Your task to perform on an android device: Is it going to rain today? Image 0: 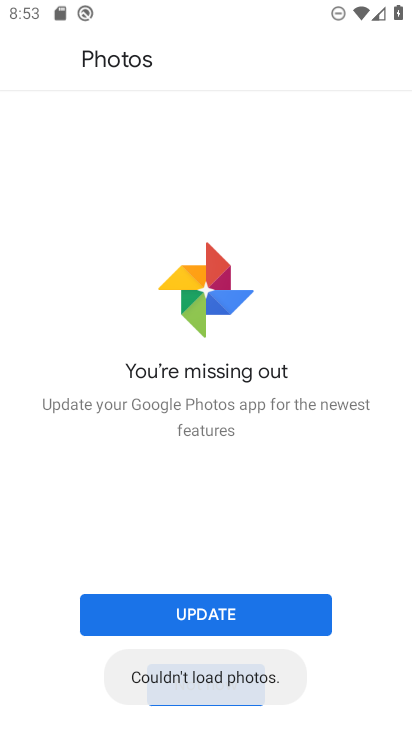
Step 0: press home button
Your task to perform on an android device: Is it going to rain today? Image 1: 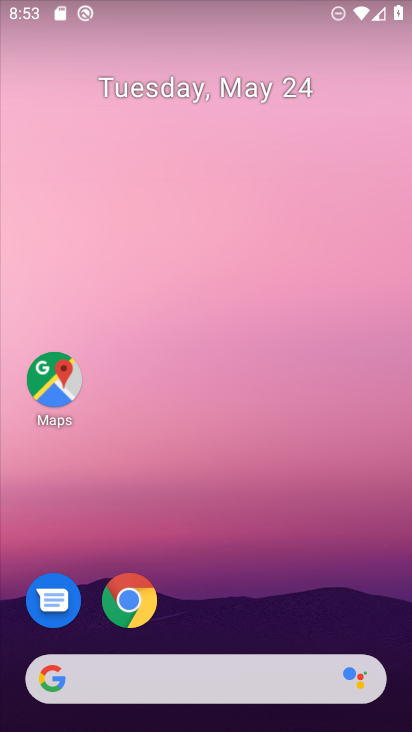
Step 1: click (90, 682)
Your task to perform on an android device: Is it going to rain today? Image 2: 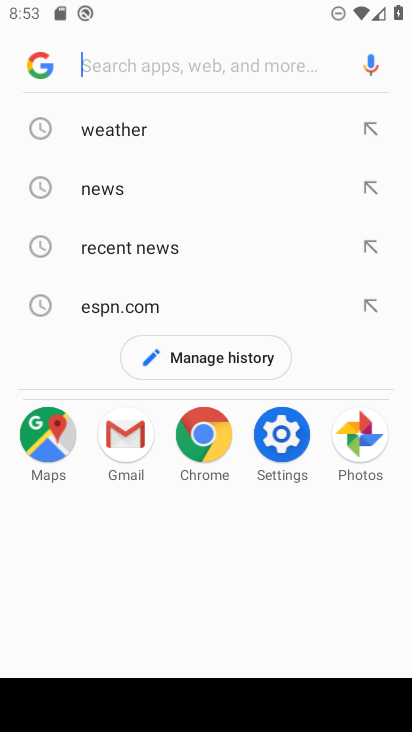
Step 2: click (129, 123)
Your task to perform on an android device: Is it going to rain today? Image 3: 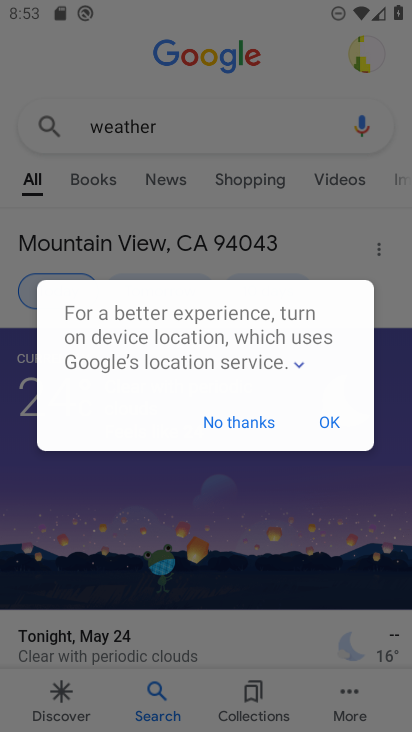
Step 3: task complete